Your task to perform on an android device: Turn on the flashlight Image 0: 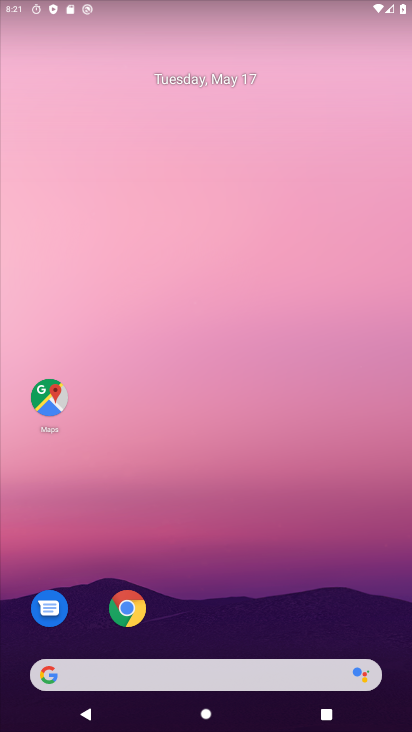
Step 0: drag from (353, 566) to (346, 200)
Your task to perform on an android device: Turn on the flashlight Image 1: 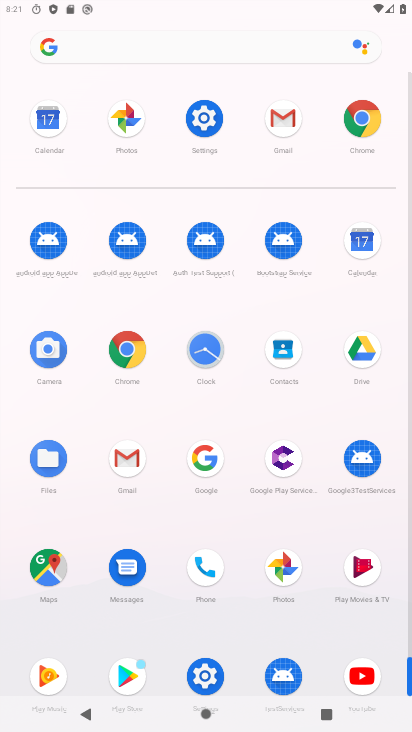
Step 1: click (193, 121)
Your task to perform on an android device: Turn on the flashlight Image 2: 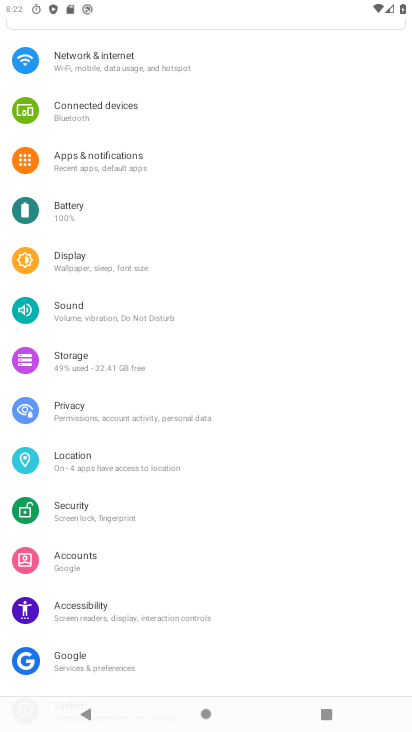
Step 2: drag from (134, 141) to (152, 420)
Your task to perform on an android device: Turn on the flashlight Image 3: 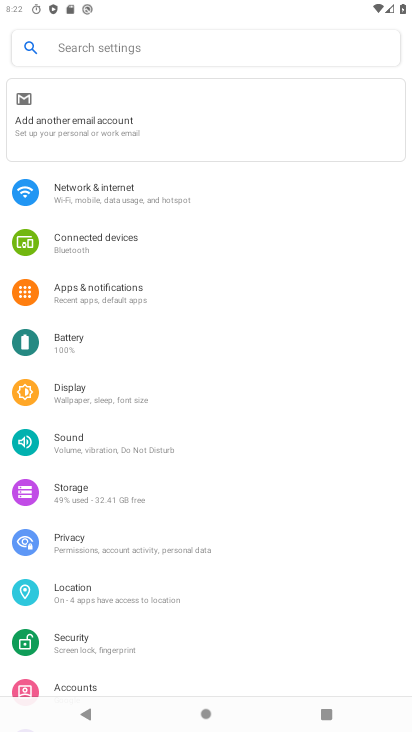
Step 3: click (165, 63)
Your task to perform on an android device: Turn on the flashlight Image 4: 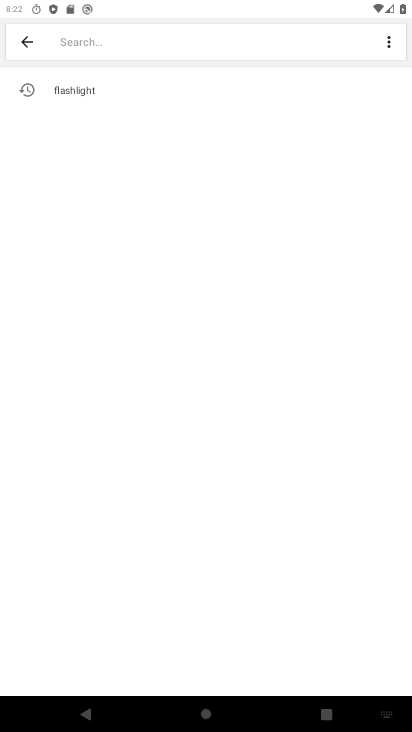
Step 4: click (113, 84)
Your task to perform on an android device: Turn on the flashlight Image 5: 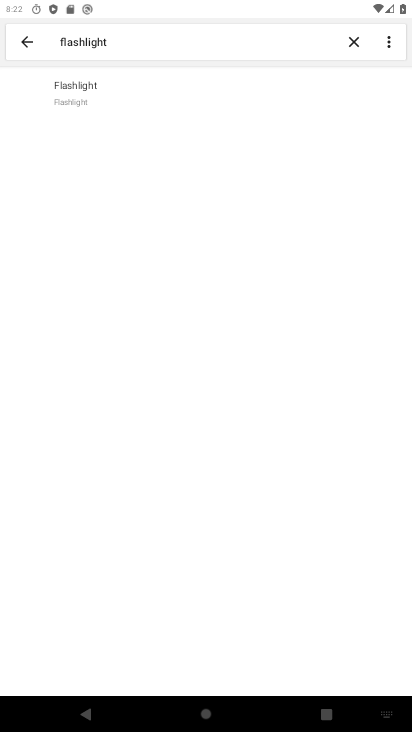
Step 5: task complete